Your task to perform on an android device: turn off priority inbox in the gmail app Image 0: 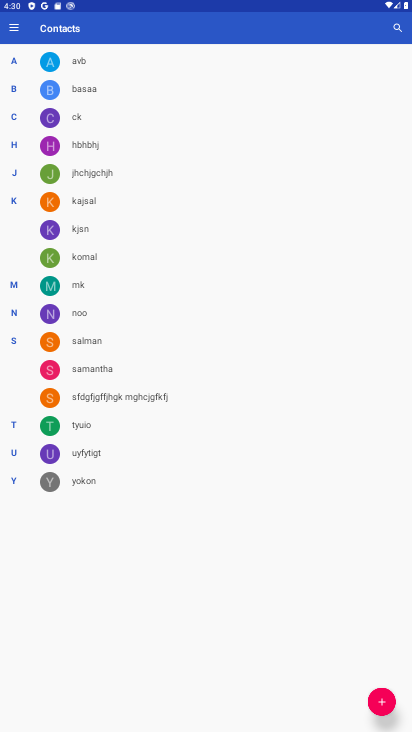
Step 0: drag from (217, 469) to (167, 169)
Your task to perform on an android device: turn off priority inbox in the gmail app Image 1: 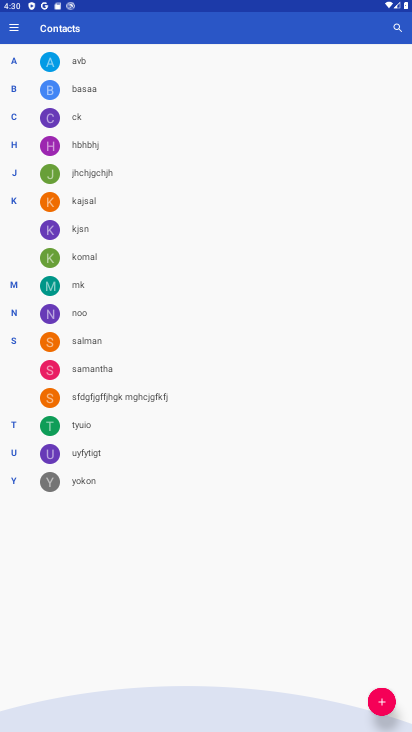
Step 1: press home button
Your task to perform on an android device: turn off priority inbox in the gmail app Image 2: 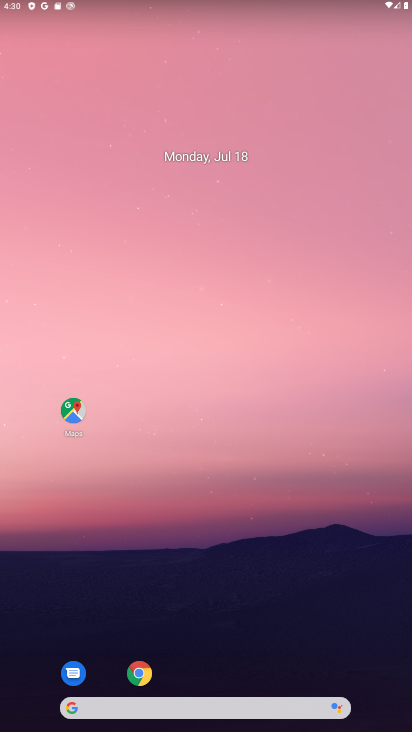
Step 2: drag from (247, 663) to (214, 74)
Your task to perform on an android device: turn off priority inbox in the gmail app Image 3: 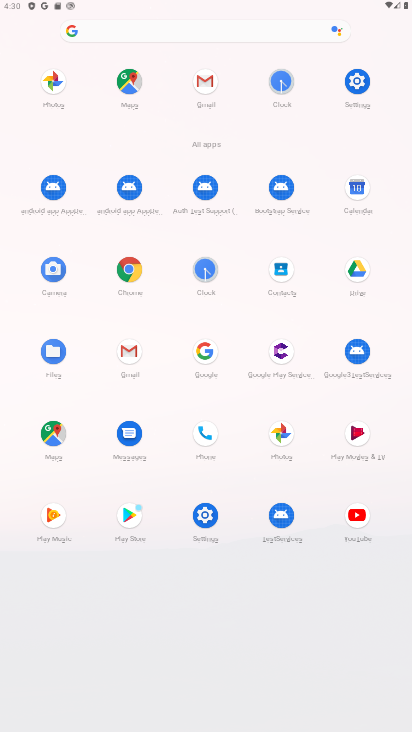
Step 3: click (210, 89)
Your task to perform on an android device: turn off priority inbox in the gmail app Image 4: 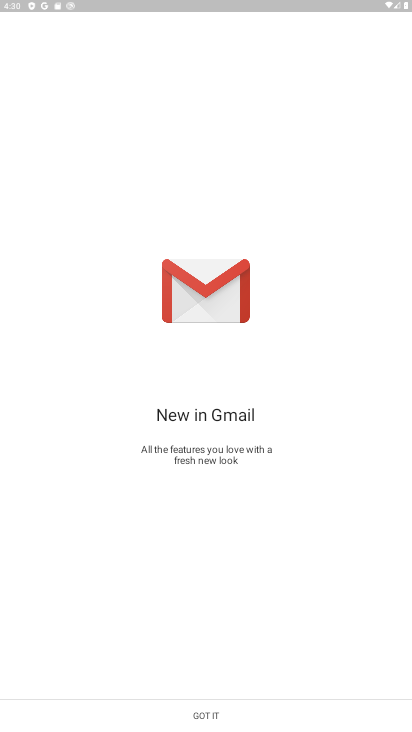
Step 4: click (211, 719)
Your task to perform on an android device: turn off priority inbox in the gmail app Image 5: 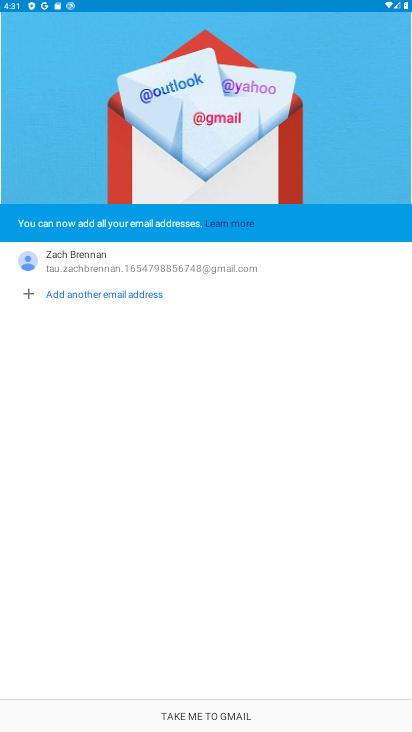
Step 5: click (211, 719)
Your task to perform on an android device: turn off priority inbox in the gmail app Image 6: 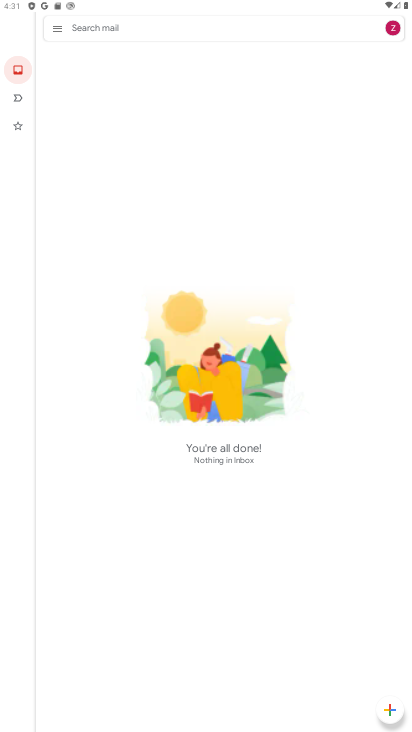
Step 6: click (57, 19)
Your task to perform on an android device: turn off priority inbox in the gmail app Image 7: 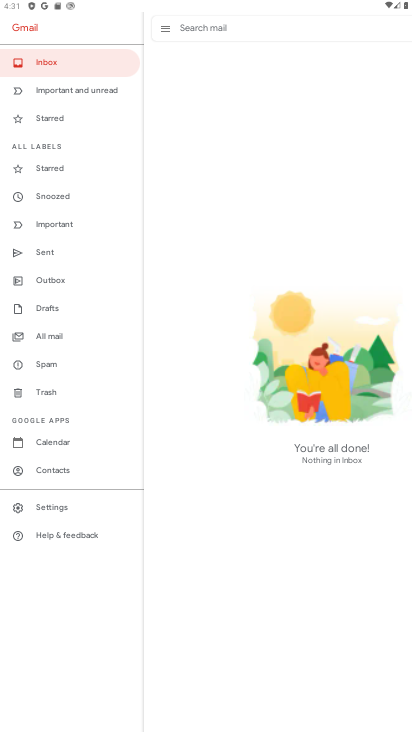
Step 7: click (60, 502)
Your task to perform on an android device: turn off priority inbox in the gmail app Image 8: 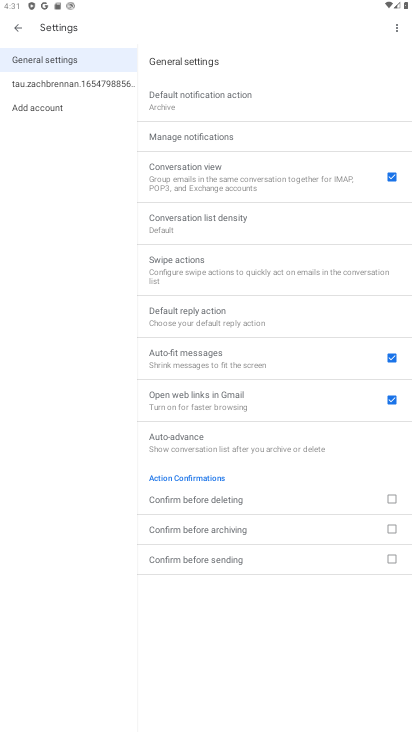
Step 8: click (95, 87)
Your task to perform on an android device: turn off priority inbox in the gmail app Image 9: 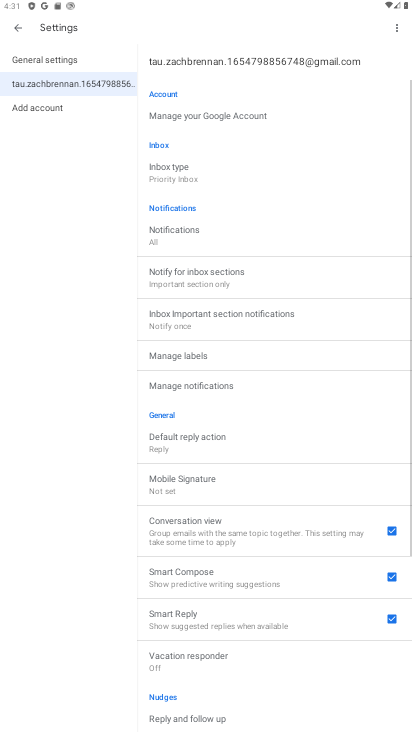
Step 9: click (198, 173)
Your task to perform on an android device: turn off priority inbox in the gmail app Image 10: 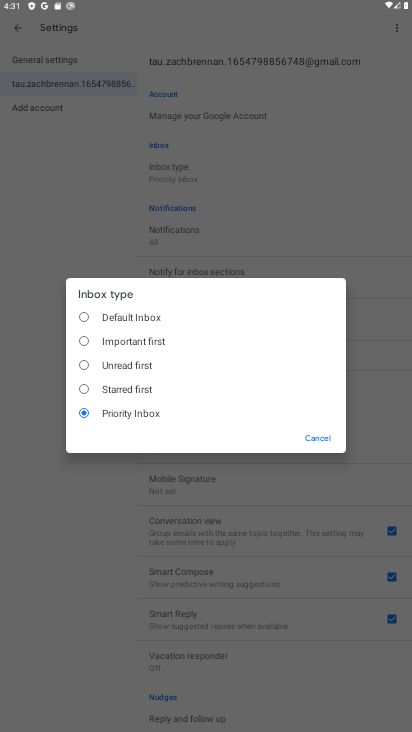
Step 10: click (153, 314)
Your task to perform on an android device: turn off priority inbox in the gmail app Image 11: 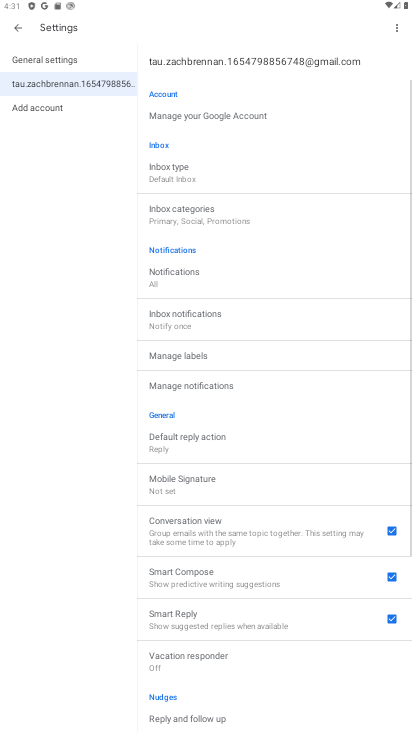
Step 11: task complete